Your task to perform on an android device: Go to Google Image 0: 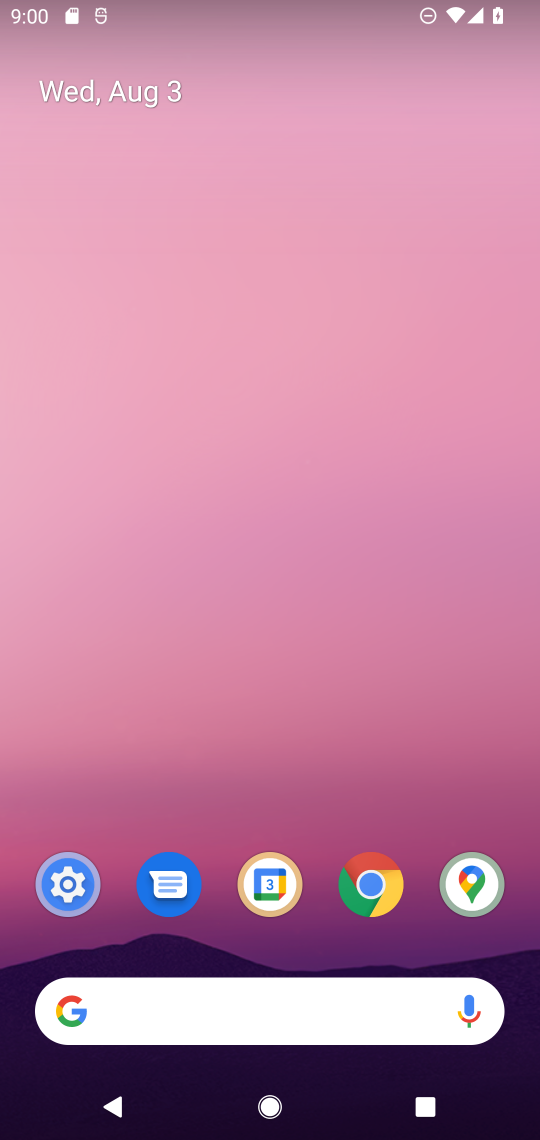
Step 0: click (118, 993)
Your task to perform on an android device: Go to Google Image 1: 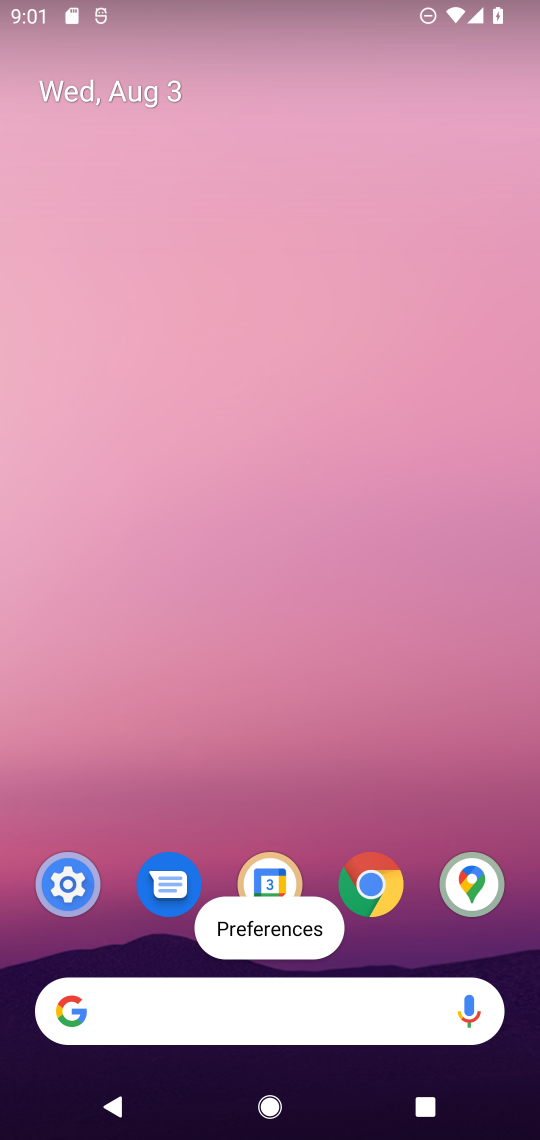
Step 1: click (203, 1017)
Your task to perform on an android device: Go to Google Image 2: 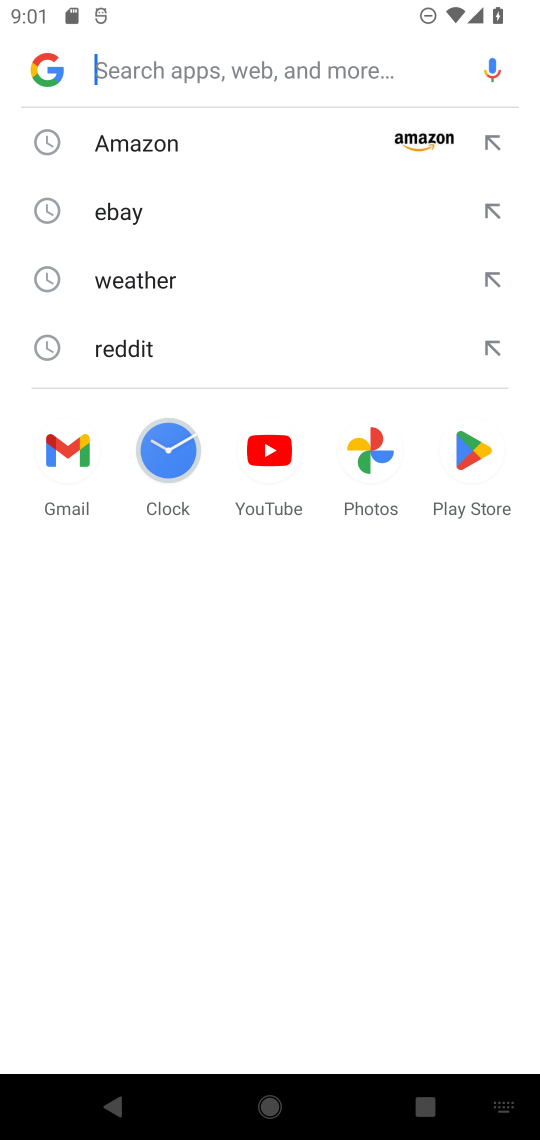
Step 2: task complete